Your task to perform on an android device: Do I have any events this weekend? Image 0: 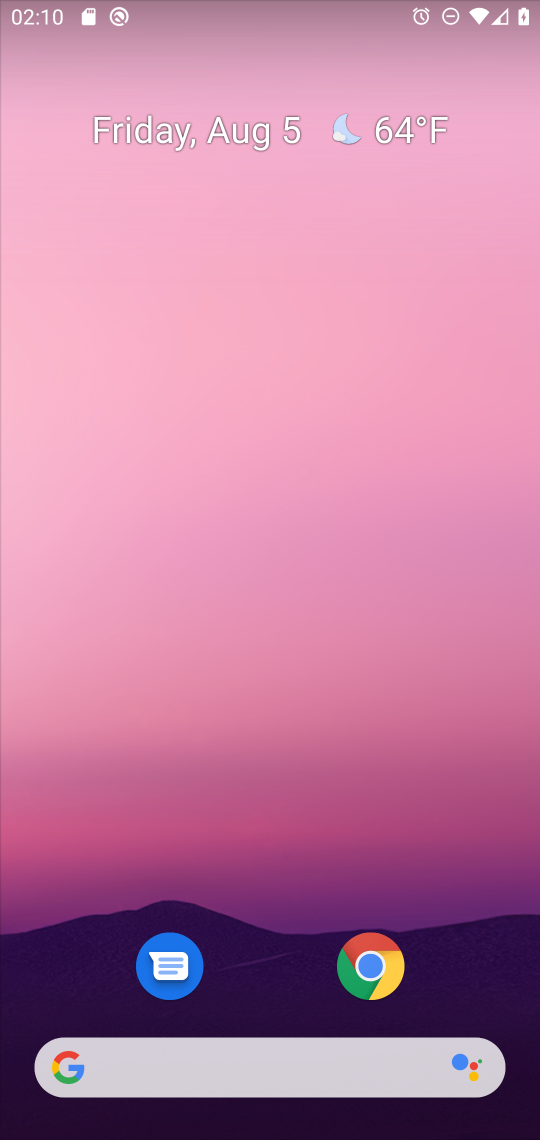
Step 0: drag from (298, 902) to (393, 18)
Your task to perform on an android device: Do I have any events this weekend? Image 1: 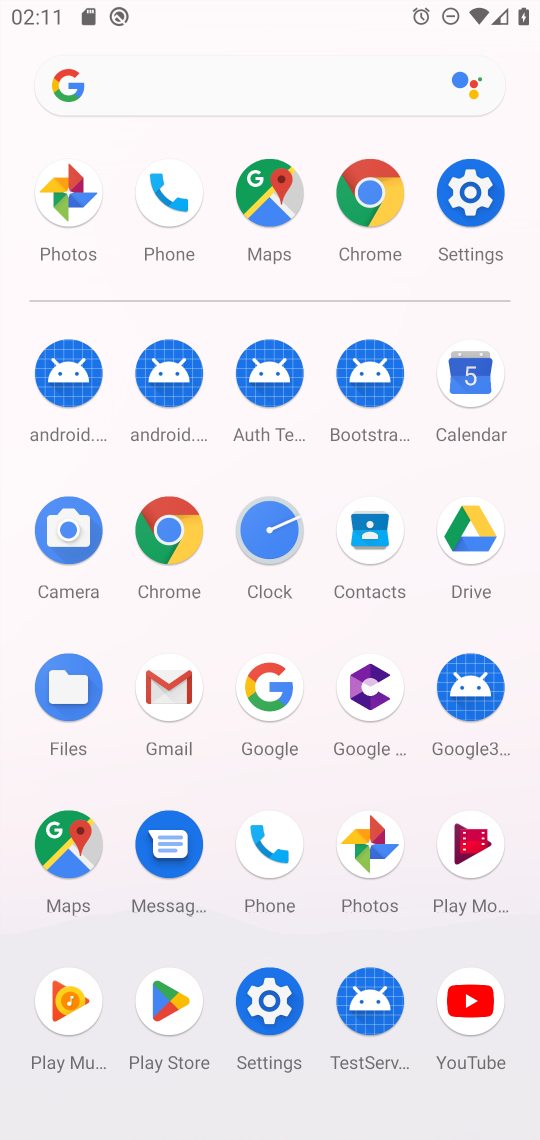
Step 1: click (470, 365)
Your task to perform on an android device: Do I have any events this weekend? Image 2: 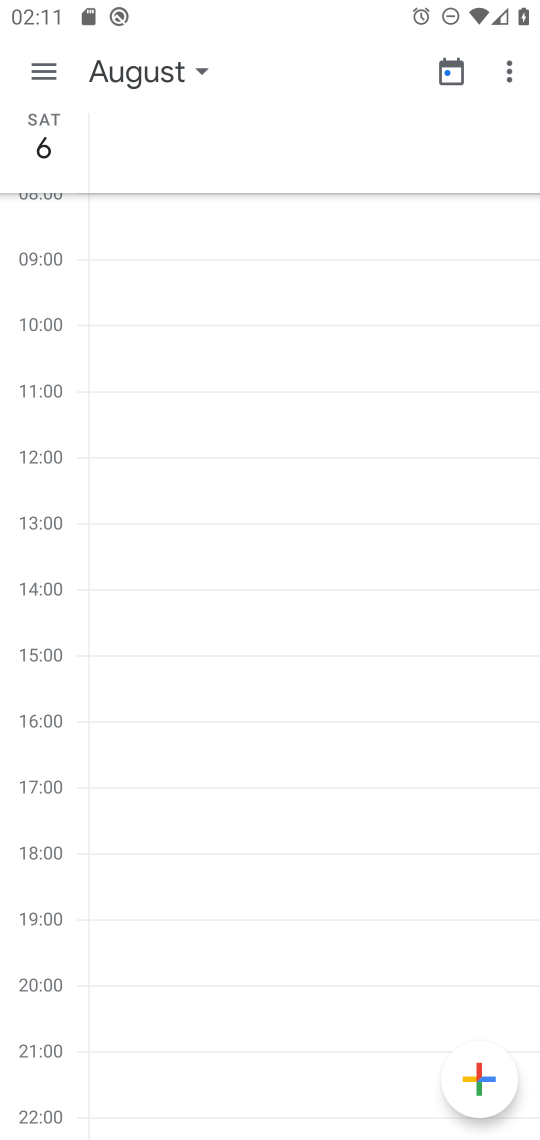
Step 2: click (41, 61)
Your task to perform on an android device: Do I have any events this weekend? Image 3: 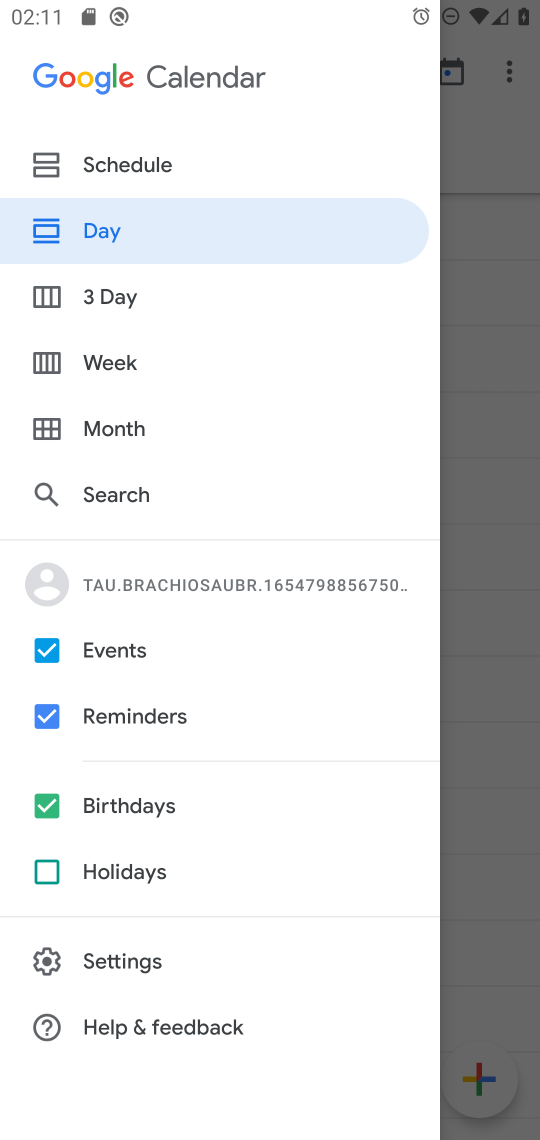
Step 3: click (80, 426)
Your task to perform on an android device: Do I have any events this weekend? Image 4: 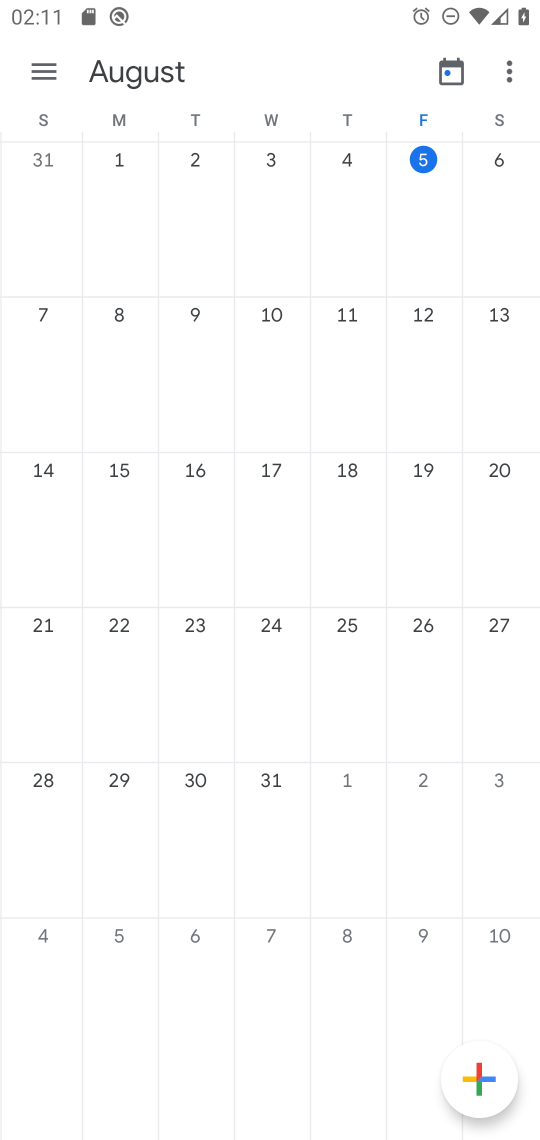
Step 4: click (498, 158)
Your task to perform on an android device: Do I have any events this weekend? Image 5: 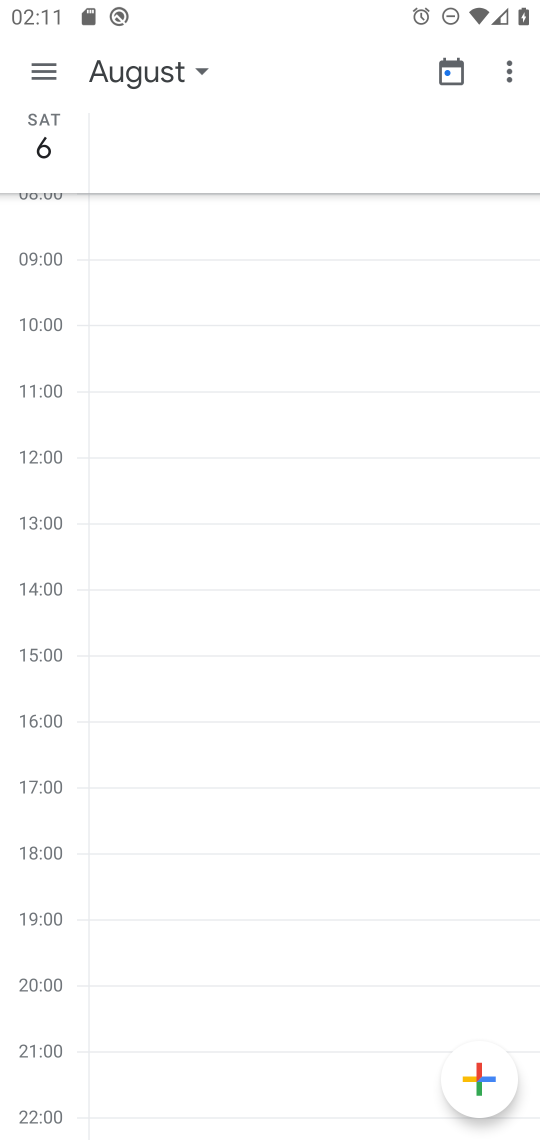
Step 5: click (269, 440)
Your task to perform on an android device: Do I have any events this weekend? Image 6: 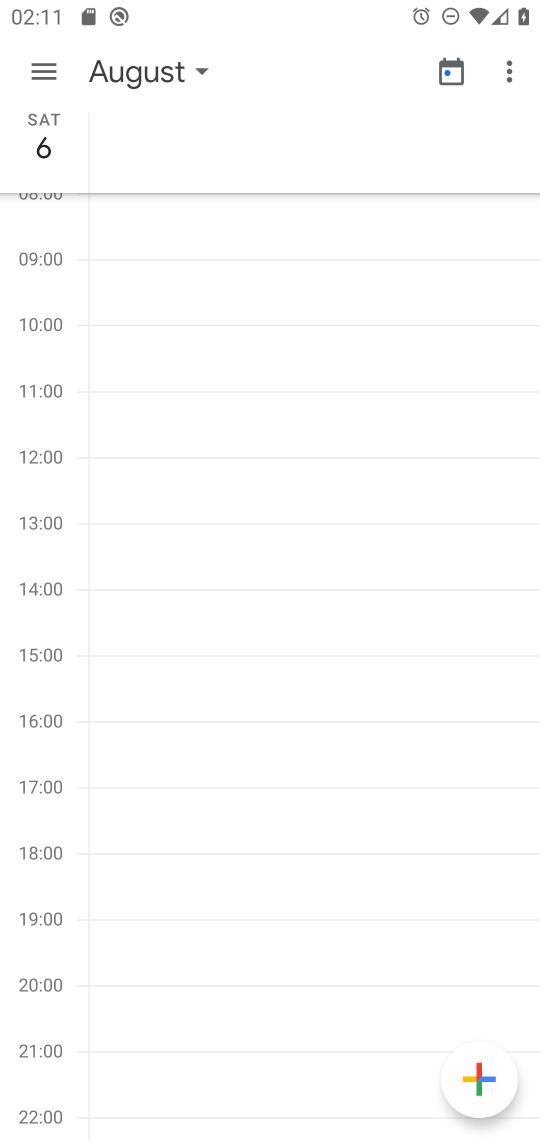
Step 6: task complete